Your task to perform on an android device: turn off priority inbox in the gmail app Image 0: 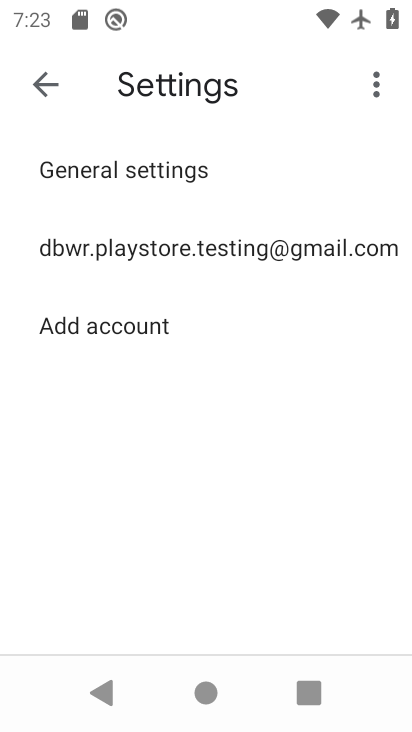
Step 0: press home button
Your task to perform on an android device: turn off priority inbox in the gmail app Image 1: 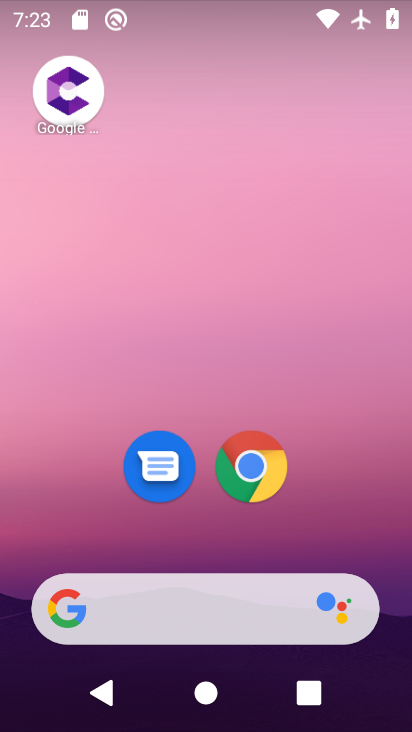
Step 1: drag from (378, 510) to (207, 1)
Your task to perform on an android device: turn off priority inbox in the gmail app Image 2: 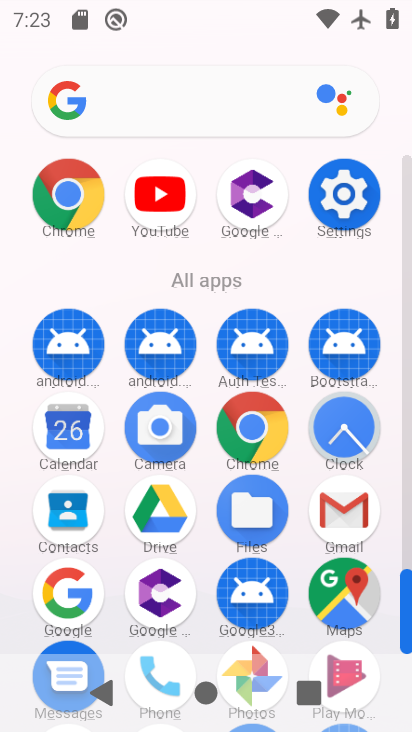
Step 2: click (339, 163)
Your task to perform on an android device: turn off priority inbox in the gmail app Image 3: 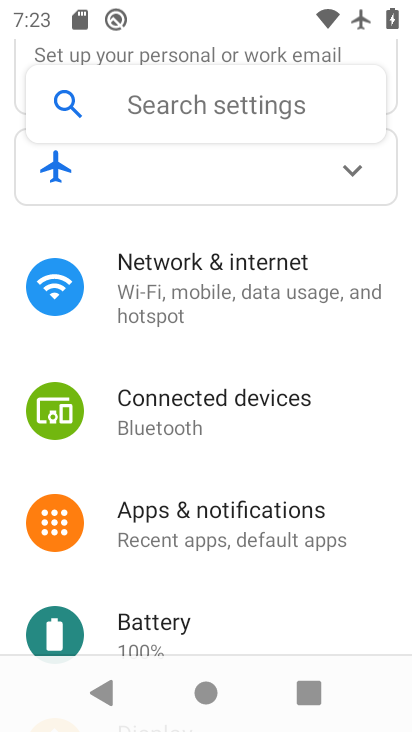
Step 3: drag from (196, 509) to (199, 306)
Your task to perform on an android device: turn off priority inbox in the gmail app Image 4: 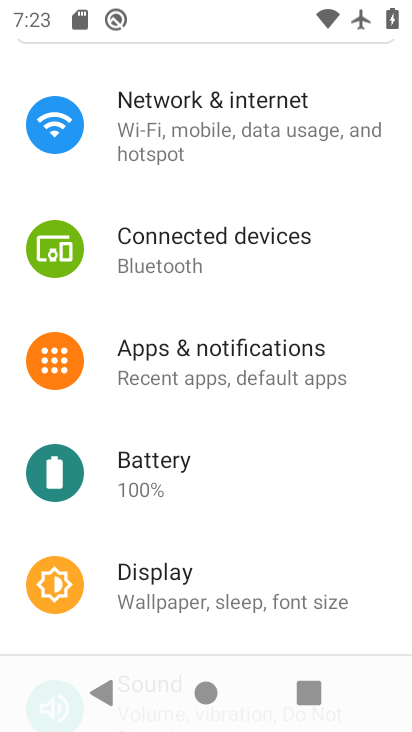
Step 4: press home button
Your task to perform on an android device: turn off priority inbox in the gmail app Image 5: 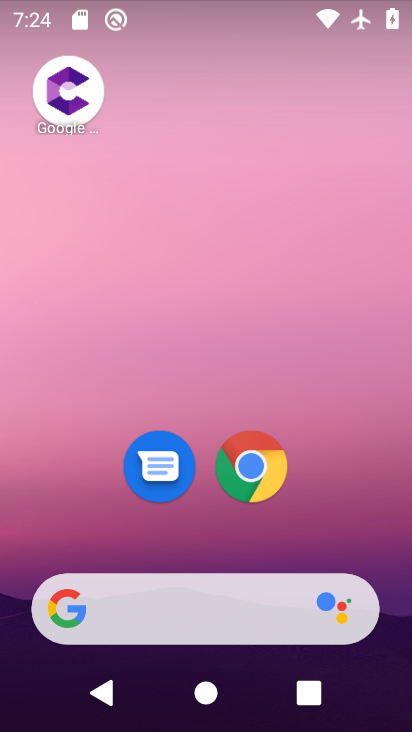
Step 5: drag from (327, 490) to (288, 185)
Your task to perform on an android device: turn off priority inbox in the gmail app Image 6: 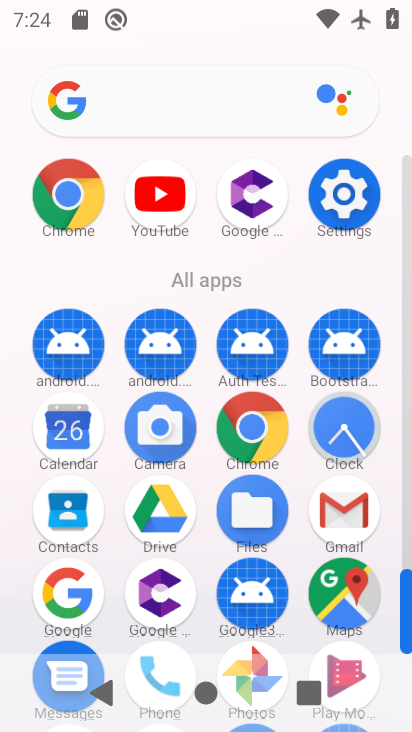
Step 6: click (324, 508)
Your task to perform on an android device: turn off priority inbox in the gmail app Image 7: 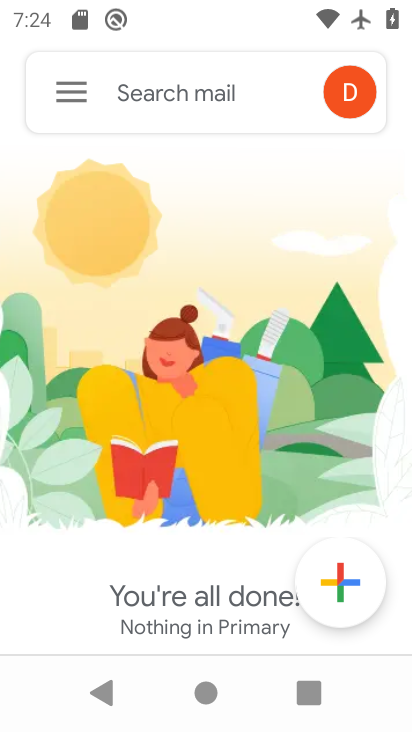
Step 7: click (73, 98)
Your task to perform on an android device: turn off priority inbox in the gmail app Image 8: 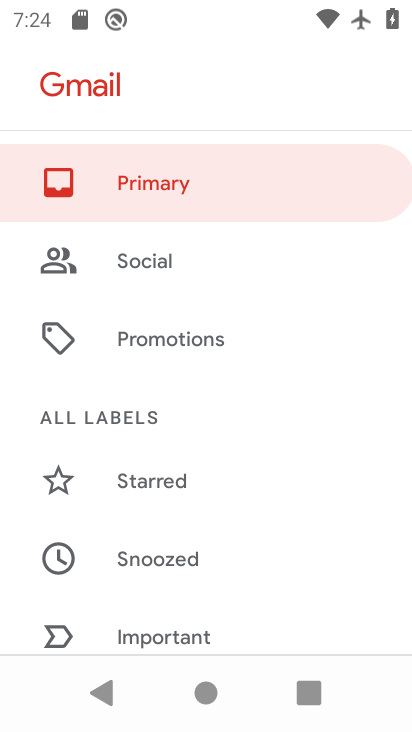
Step 8: drag from (177, 580) to (160, 260)
Your task to perform on an android device: turn off priority inbox in the gmail app Image 9: 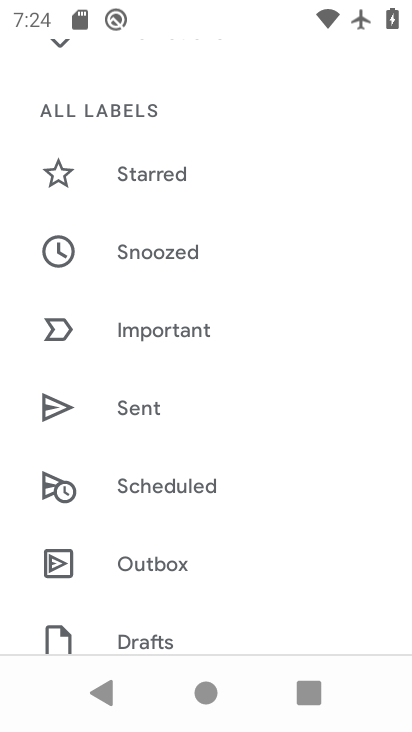
Step 9: drag from (196, 600) to (265, 229)
Your task to perform on an android device: turn off priority inbox in the gmail app Image 10: 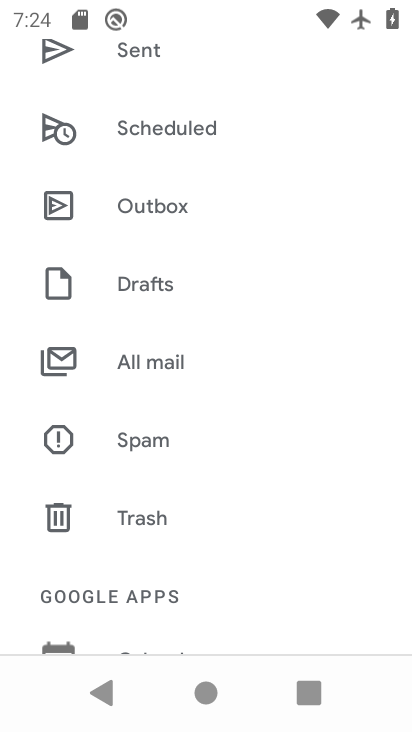
Step 10: drag from (220, 589) to (223, 337)
Your task to perform on an android device: turn off priority inbox in the gmail app Image 11: 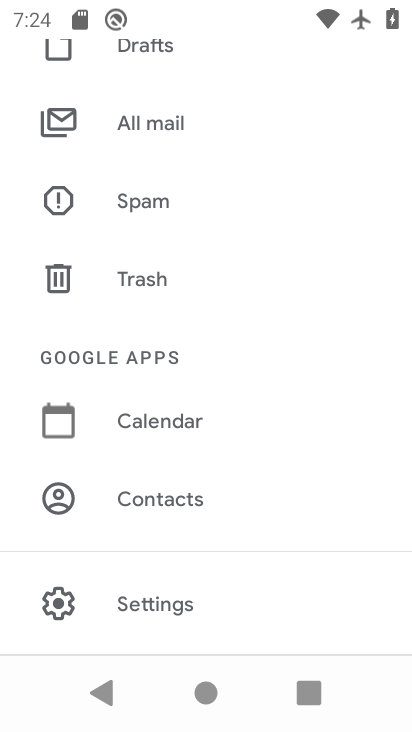
Step 11: click (207, 586)
Your task to perform on an android device: turn off priority inbox in the gmail app Image 12: 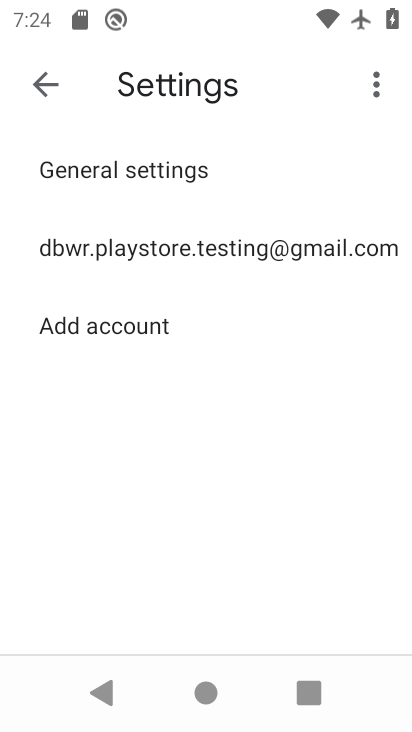
Step 12: click (189, 244)
Your task to perform on an android device: turn off priority inbox in the gmail app Image 13: 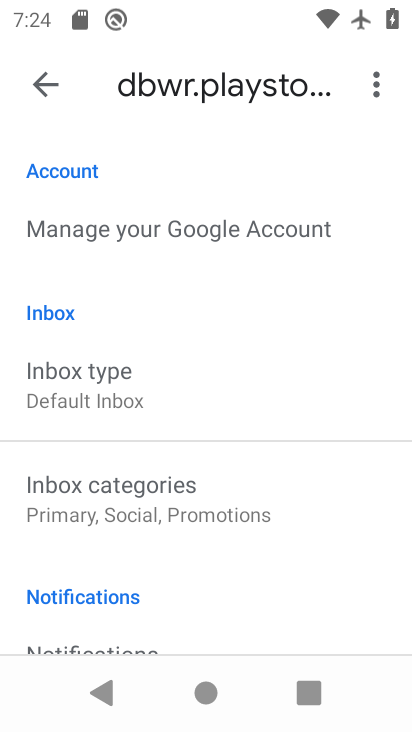
Step 13: click (153, 385)
Your task to perform on an android device: turn off priority inbox in the gmail app Image 14: 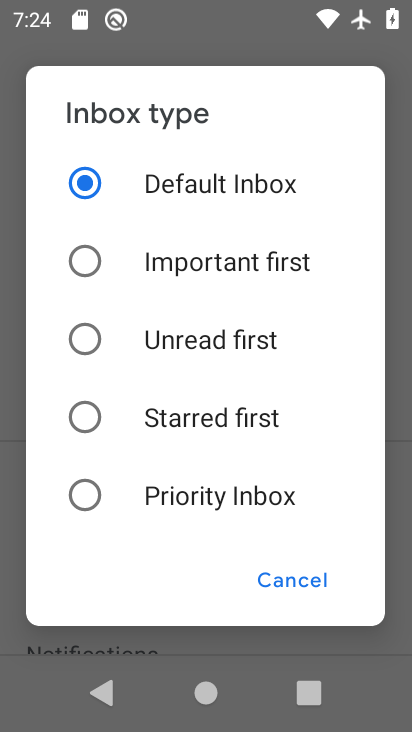
Step 14: click (183, 505)
Your task to perform on an android device: turn off priority inbox in the gmail app Image 15: 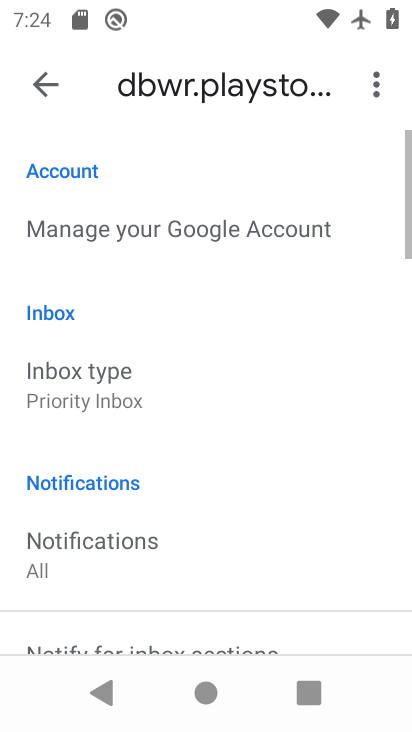
Step 15: task complete